Your task to perform on an android device: turn off airplane mode Image 0: 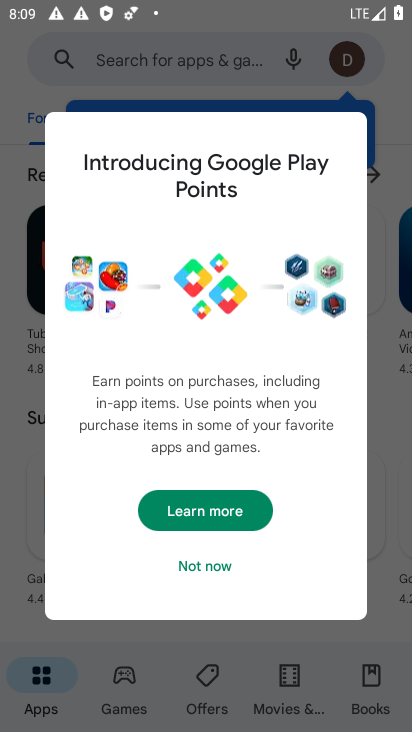
Step 0: press home button
Your task to perform on an android device: turn off airplane mode Image 1: 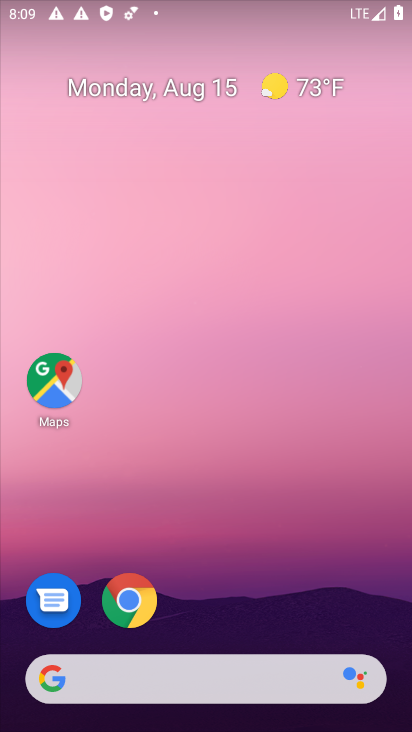
Step 1: drag from (192, 562) to (224, 161)
Your task to perform on an android device: turn off airplane mode Image 2: 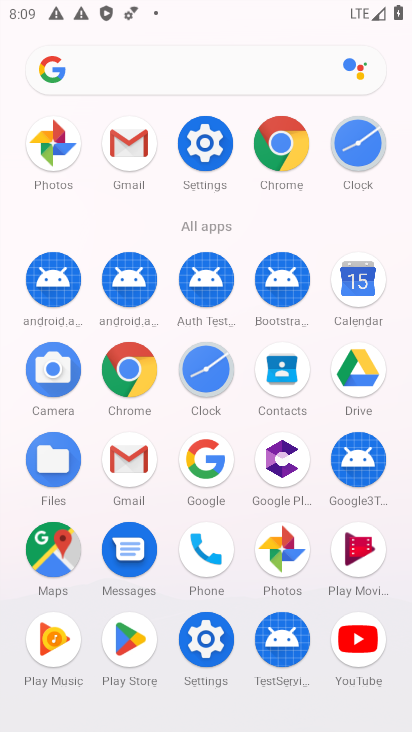
Step 2: click (193, 147)
Your task to perform on an android device: turn off airplane mode Image 3: 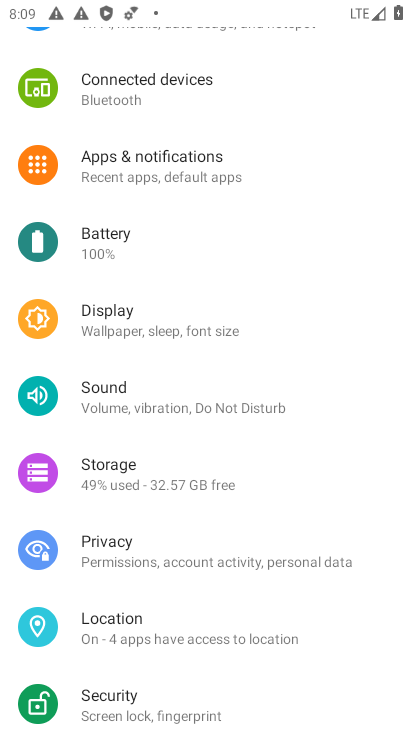
Step 3: drag from (165, 133) to (173, 569)
Your task to perform on an android device: turn off airplane mode Image 4: 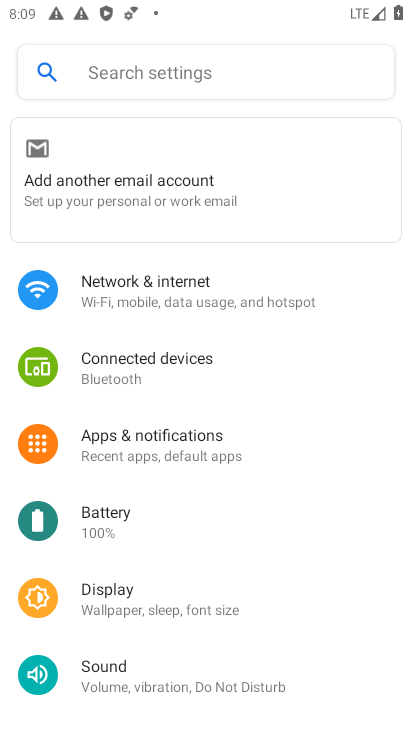
Step 4: click (153, 301)
Your task to perform on an android device: turn off airplane mode Image 5: 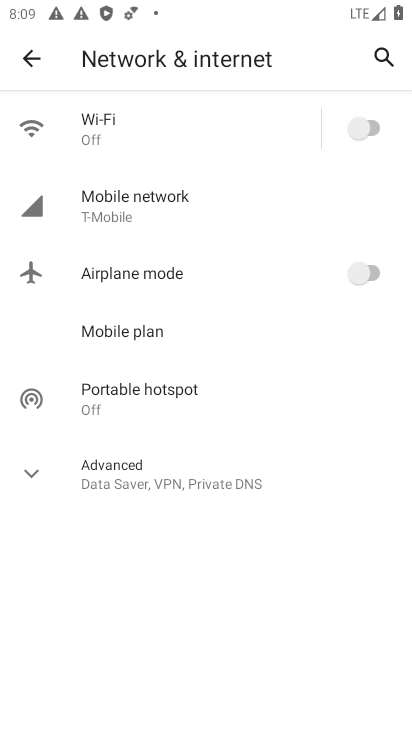
Step 5: task complete